Your task to perform on an android device: Search for seafood restaurants on Google Maps Image 0: 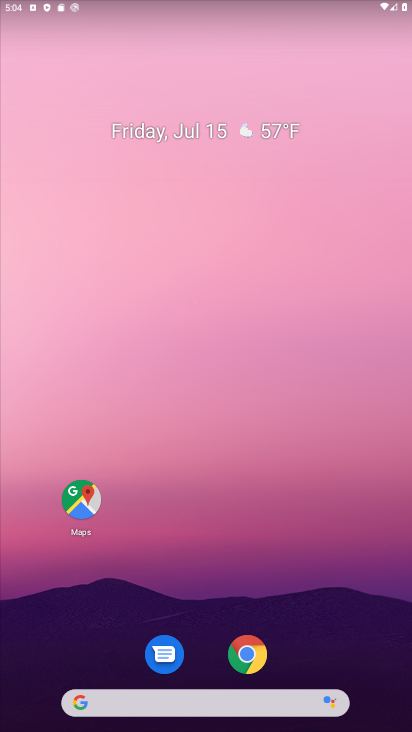
Step 0: click (77, 482)
Your task to perform on an android device: Search for seafood restaurants on Google Maps Image 1: 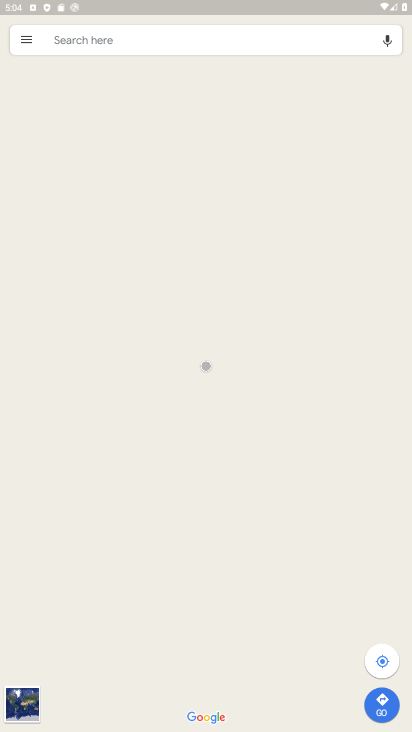
Step 1: click (111, 44)
Your task to perform on an android device: Search for seafood restaurants on Google Maps Image 2: 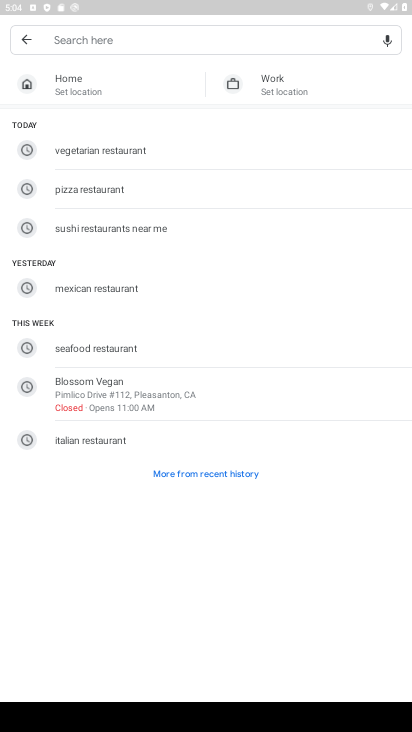
Step 2: click (105, 347)
Your task to perform on an android device: Search for seafood restaurants on Google Maps Image 3: 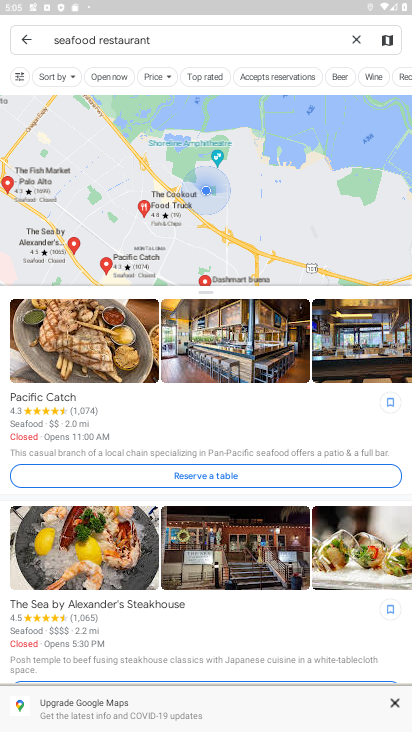
Step 3: task complete